Your task to perform on an android device: Set an alarm for 2pm Image 0: 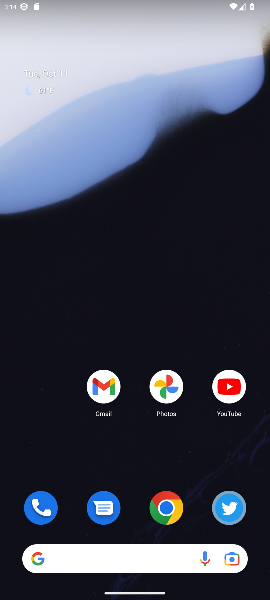
Step 0: drag from (220, 453) to (160, 249)
Your task to perform on an android device: Set an alarm for 2pm Image 1: 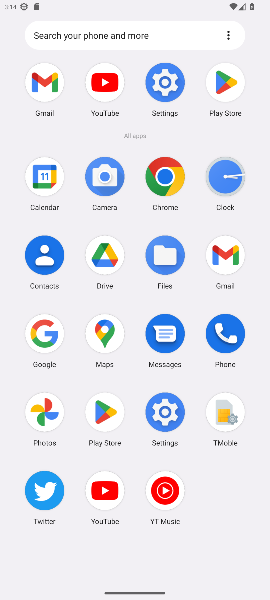
Step 1: click (222, 183)
Your task to perform on an android device: Set an alarm for 2pm Image 2: 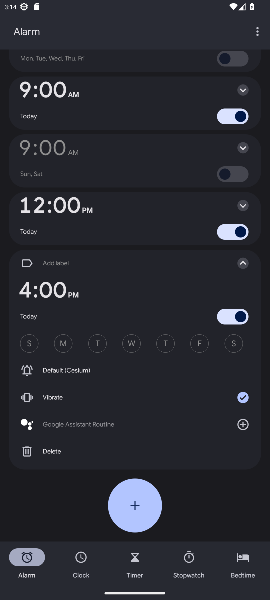
Step 2: click (134, 505)
Your task to perform on an android device: Set an alarm for 2pm Image 3: 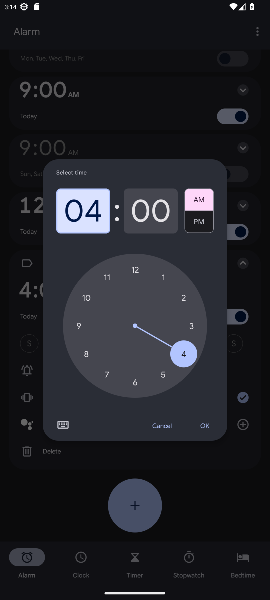
Step 3: click (200, 222)
Your task to perform on an android device: Set an alarm for 2pm Image 4: 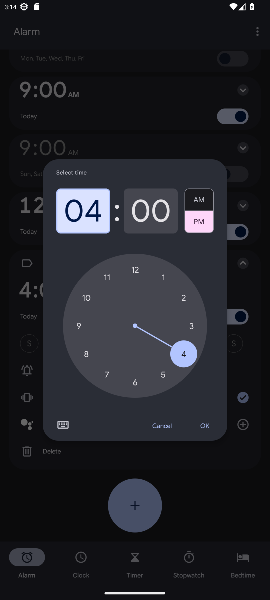
Step 4: click (182, 298)
Your task to perform on an android device: Set an alarm for 2pm Image 5: 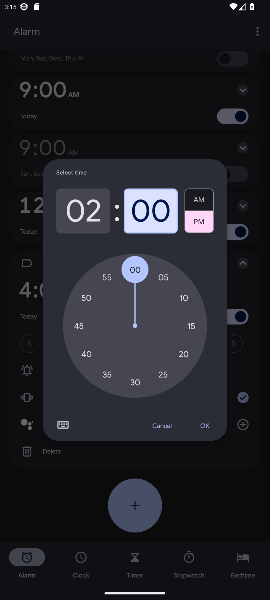
Step 5: click (204, 424)
Your task to perform on an android device: Set an alarm for 2pm Image 6: 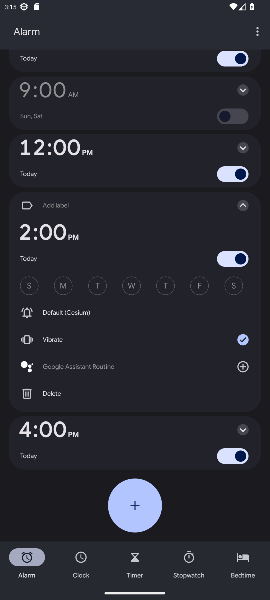
Step 6: task complete